Your task to perform on an android device: Search for Italian restaurants on Maps Image 0: 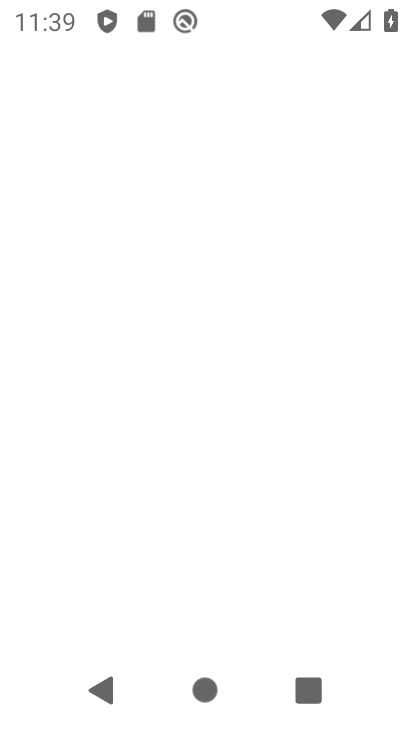
Step 0: press home button
Your task to perform on an android device: Search for Italian restaurants on Maps Image 1: 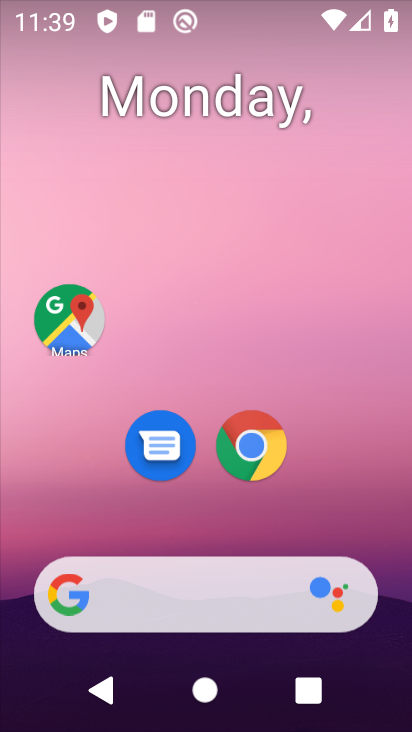
Step 1: click (72, 322)
Your task to perform on an android device: Search for Italian restaurants on Maps Image 2: 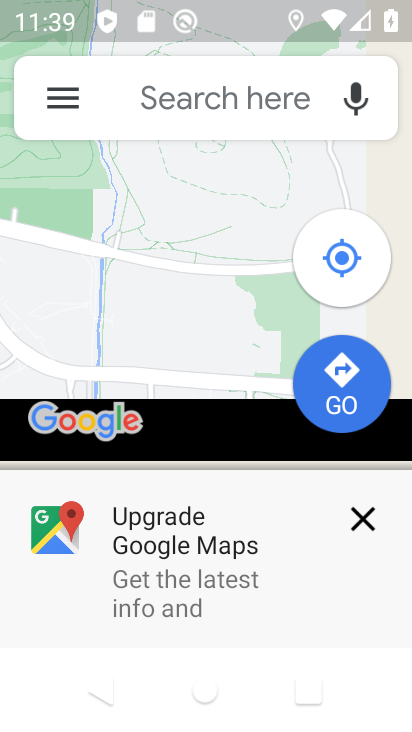
Step 2: click (195, 109)
Your task to perform on an android device: Search for Italian restaurants on Maps Image 3: 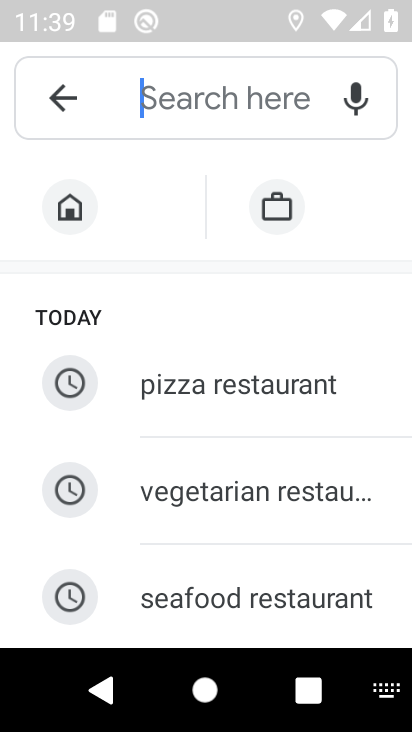
Step 3: type "italian restaurants"
Your task to perform on an android device: Search for Italian restaurants on Maps Image 4: 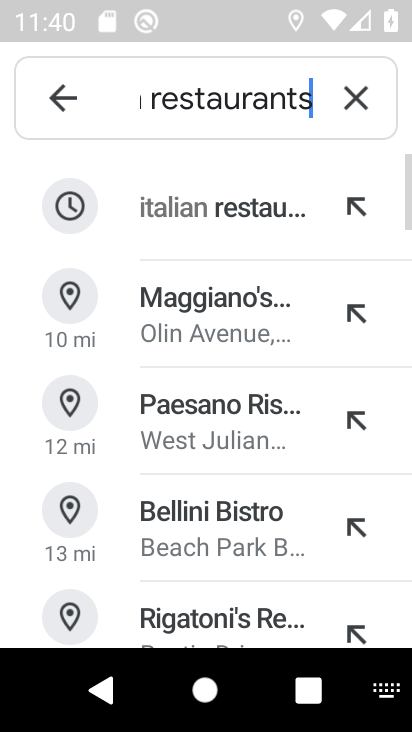
Step 4: click (250, 214)
Your task to perform on an android device: Search for Italian restaurants on Maps Image 5: 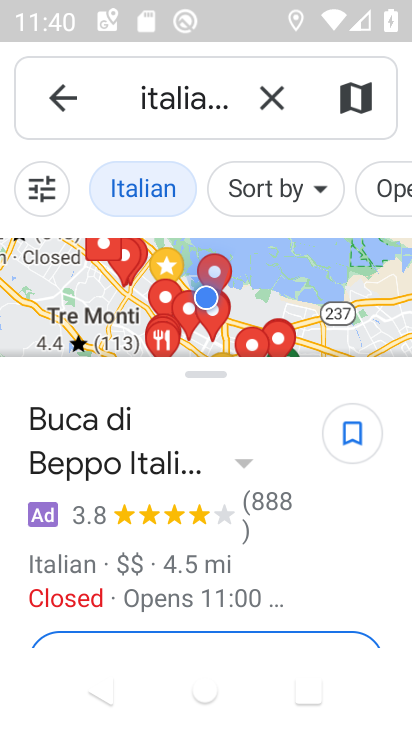
Step 5: task complete